Your task to perform on an android device: change the clock display to analog Image 0: 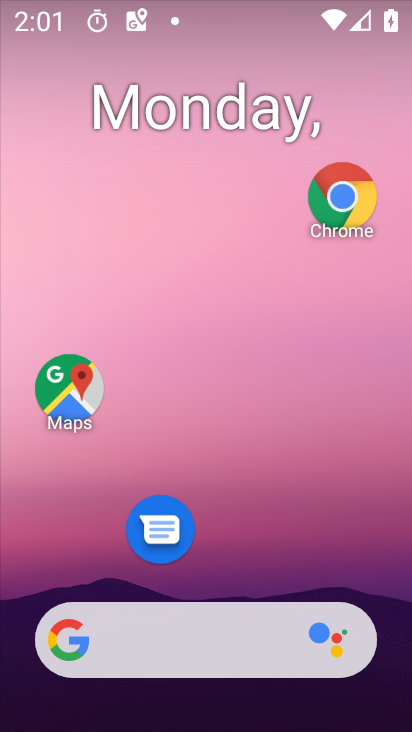
Step 0: drag from (214, 565) to (152, 32)
Your task to perform on an android device: change the clock display to analog Image 1: 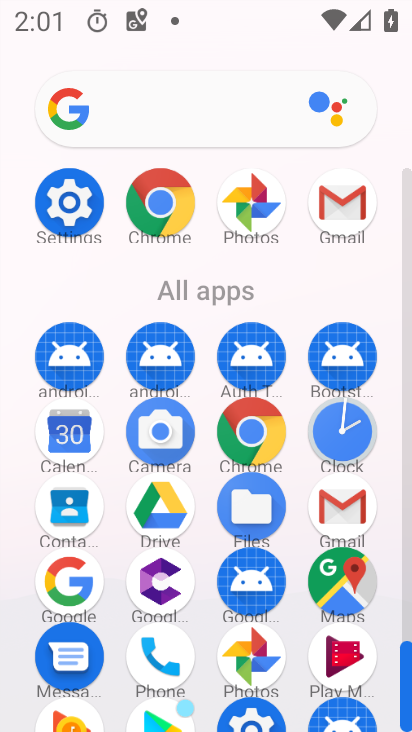
Step 1: click (324, 426)
Your task to perform on an android device: change the clock display to analog Image 2: 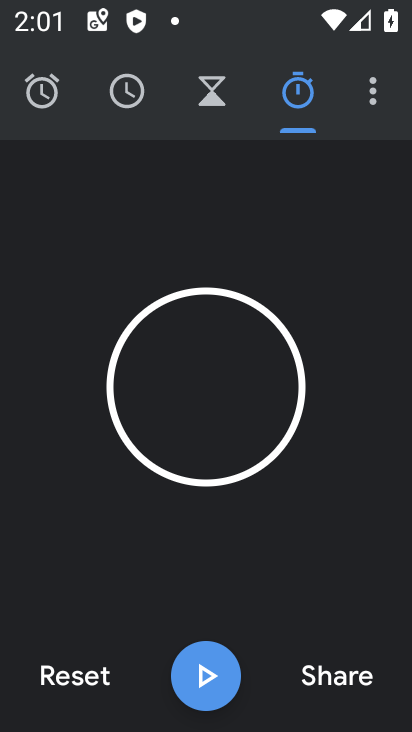
Step 2: click (360, 94)
Your task to perform on an android device: change the clock display to analog Image 3: 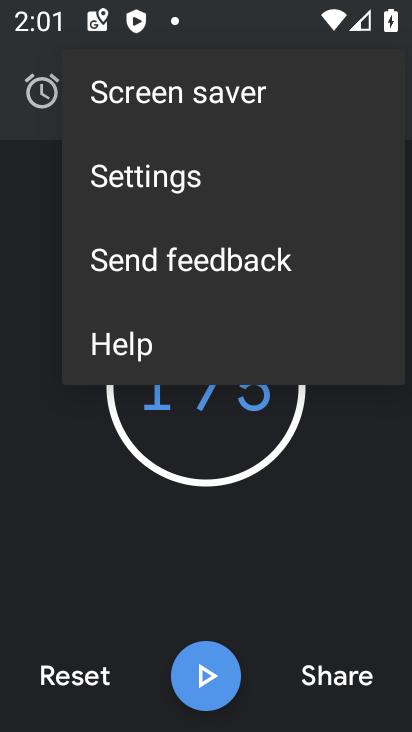
Step 3: click (176, 178)
Your task to perform on an android device: change the clock display to analog Image 4: 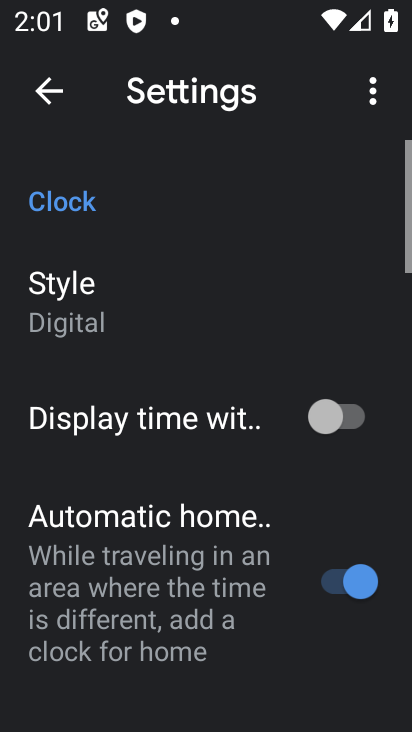
Step 4: click (121, 305)
Your task to perform on an android device: change the clock display to analog Image 5: 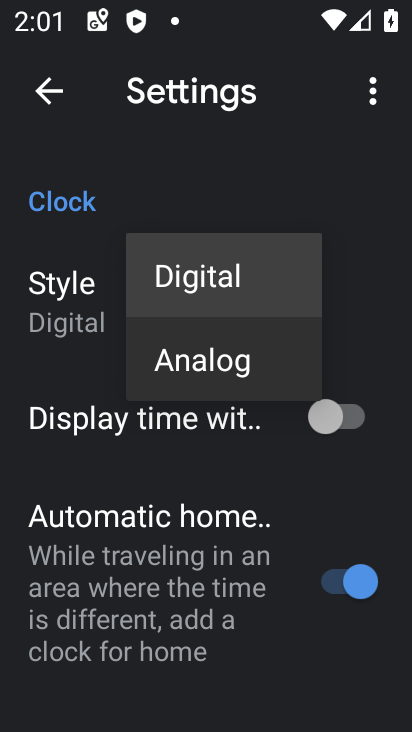
Step 5: click (209, 367)
Your task to perform on an android device: change the clock display to analog Image 6: 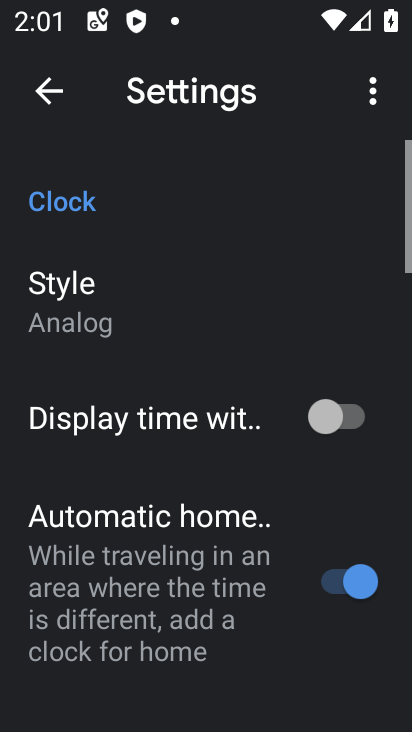
Step 6: task complete